Your task to perform on an android device: turn on airplane mode Image 0: 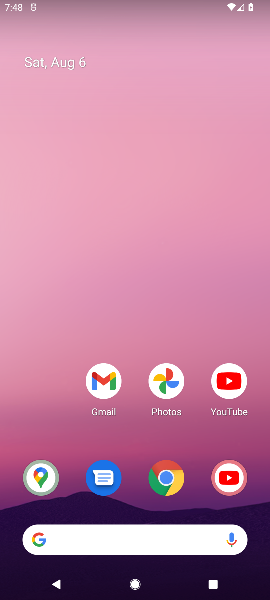
Step 0: drag from (187, 61) to (188, 298)
Your task to perform on an android device: turn on airplane mode Image 1: 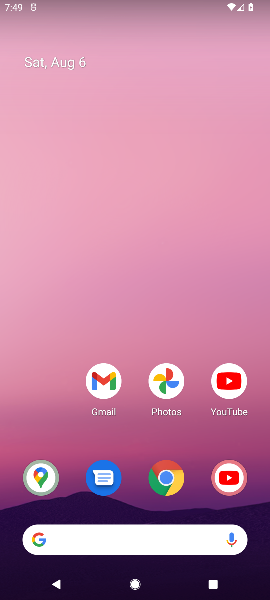
Step 1: drag from (138, 8) to (137, 513)
Your task to perform on an android device: turn on airplane mode Image 2: 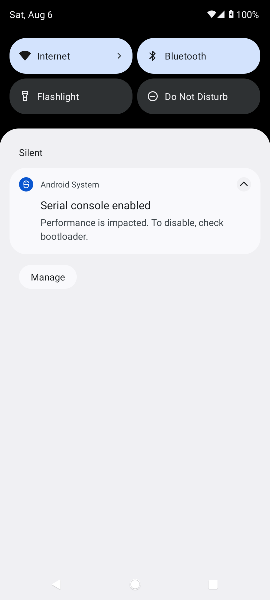
Step 2: drag from (129, 134) to (139, 590)
Your task to perform on an android device: turn on airplane mode Image 3: 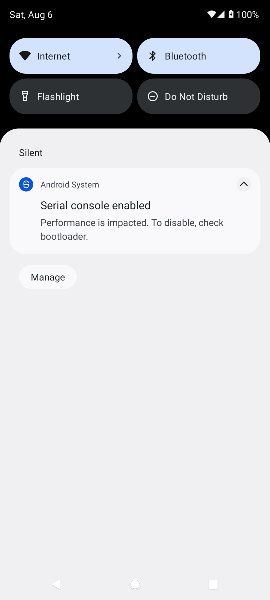
Step 3: drag from (132, 132) to (162, 441)
Your task to perform on an android device: turn on airplane mode Image 4: 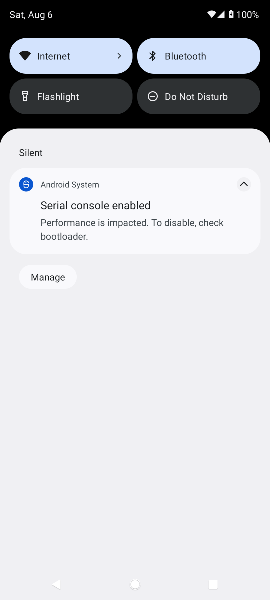
Step 4: drag from (109, 133) to (161, 529)
Your task to perform on an android device: turn on airplane mode Image 5: 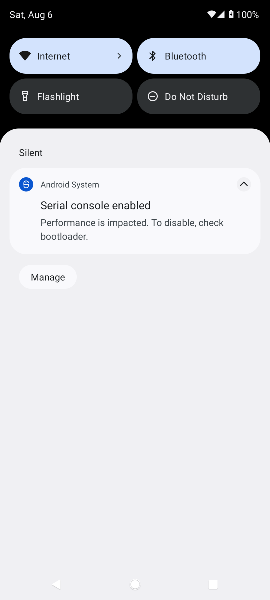
Step 5: drag from (129, 136) to (172, 529)
Your task to perform on an android device: turn on airplane mode Image 6: 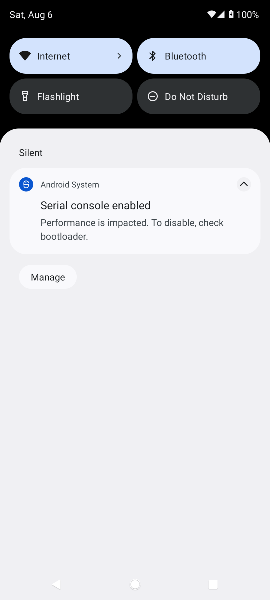
Step 6: press home button
Your task to perform on an android device: turn on airplane mode Image 7: 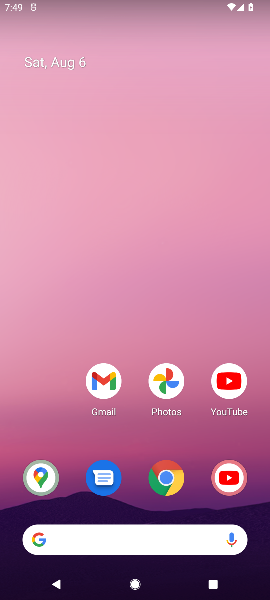
Step 7: drag from (60, 409) to (114, 126)
Your task to perform on an android device: turn on airplane mode Image 8: 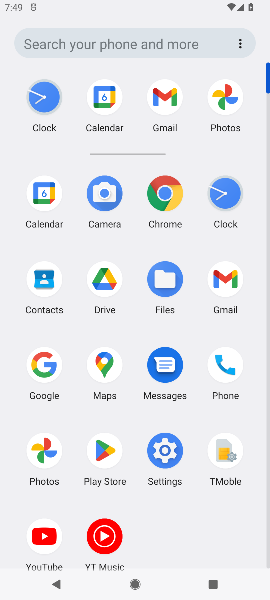
Step 8: click (154, 450)
Your task to perform on an android device: turn on airplane mode Image 9: 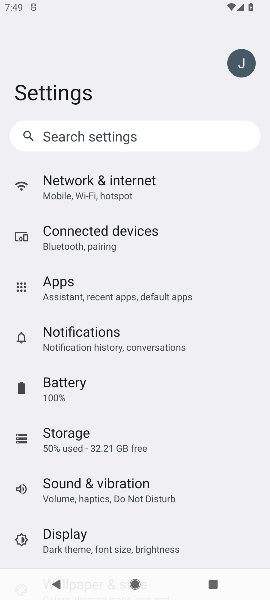
Step 9: click (118, 182)
Your task to perform on an android device: turn on airplane mode Image 10: 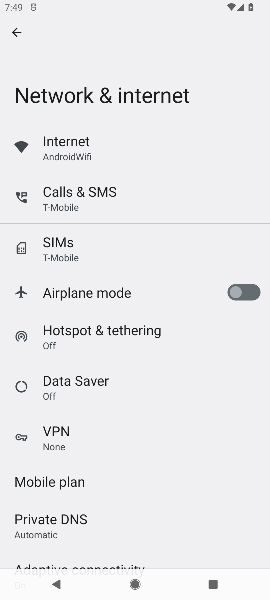
Step 10: click (244, 289)
Your task to perform on an android device: turn on airplane mode Image 11: 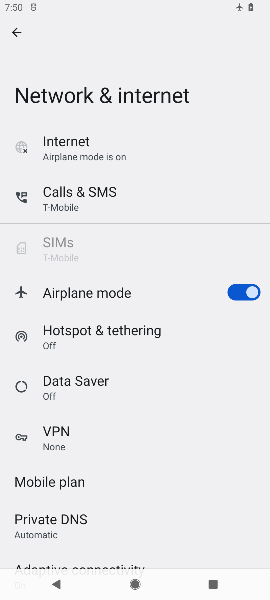
Step 11: task complete